Your task to perform on an android device: set an alarm Image 0: 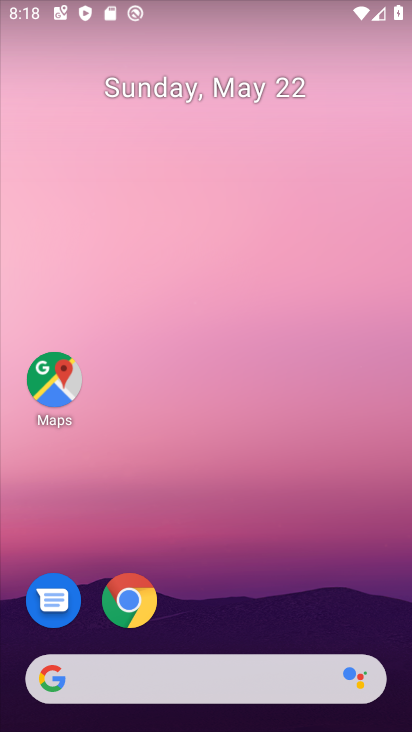
Step 0: drag from (217, 689) to (264, 234)
Your task to perform on an android device: set an alarm Image 1: 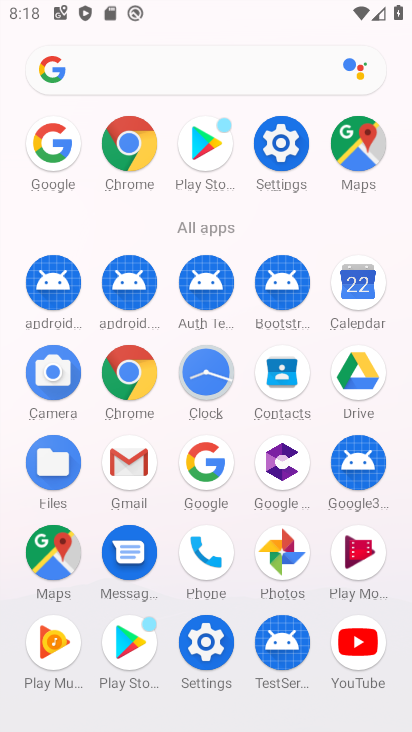
Step 1: click (218, 374)
Your task to perform on an android device: set an alarm Image 2: 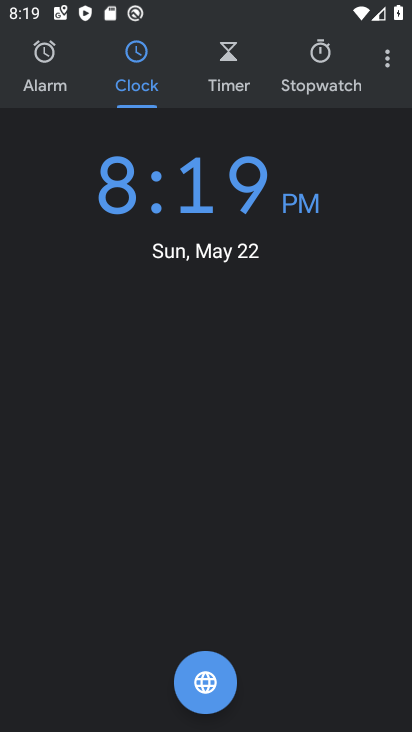
Step 2: click (56, 66)
Your task to perform on an android device: set an alarm Image 3: 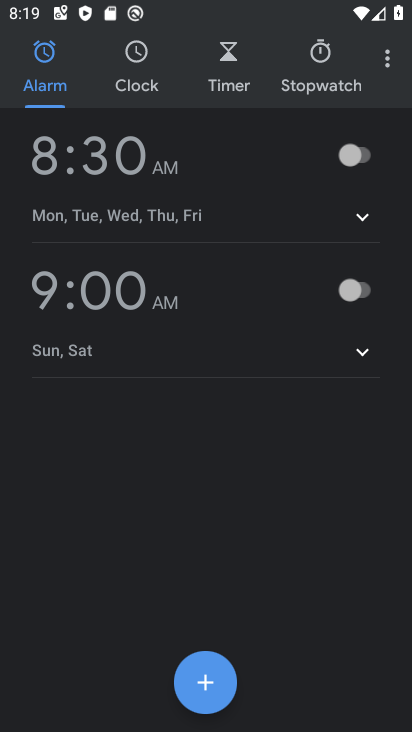
Step 3: click (213, 676)
Your task to perform on an android device: set an alarm Image 4: 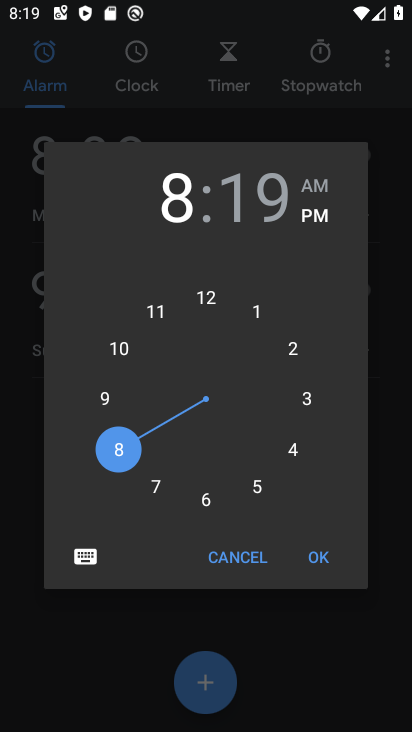
Step 4: click (329, 548)
Your task to perform on an android device: set an alarm Image 5: 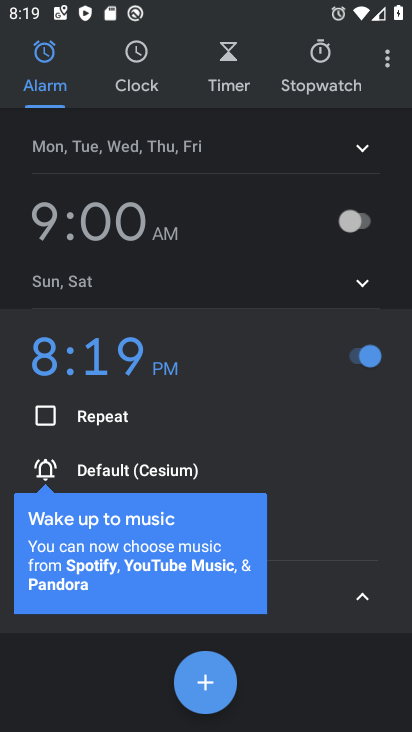
Step 5: click (219, 696)
Your task to perform on an android device: set an alarm Image 6: 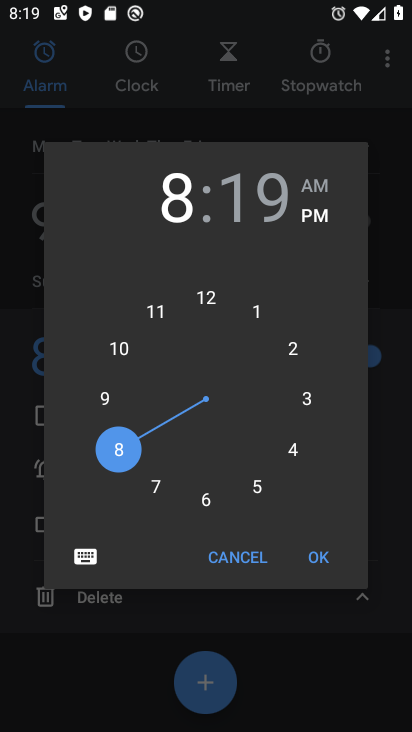
Step 6: task complete